Your task to perform on an android device: check data usage Image 0: 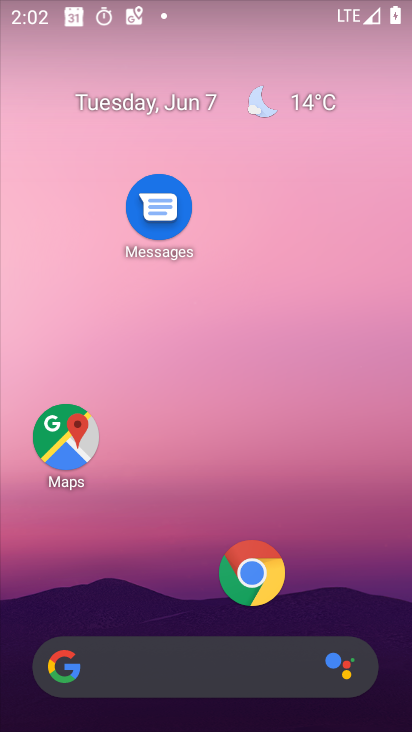
Step 0: drag from (198, 640) to (247, 3)
Your task to perform on an android device: check data usage Image 1: 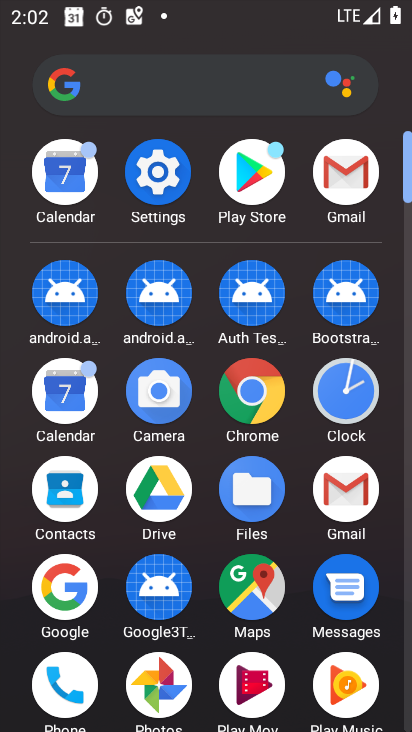
Step 1: click (156, 165)
Your task to perform on an android device: check data usage Image 2: 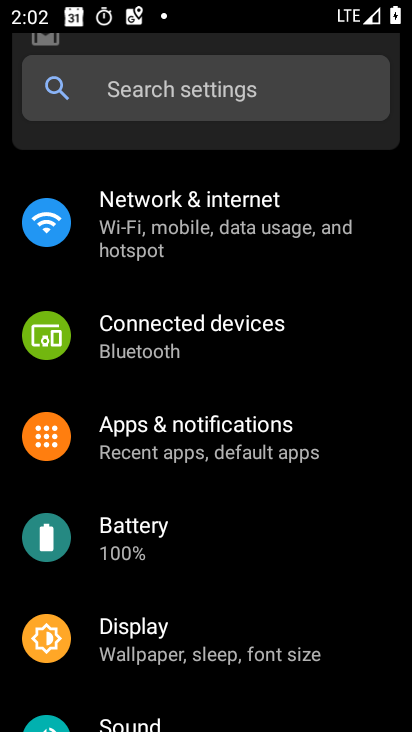
Step 2: click (211, 224)
Your task to perform on an android device: check data usage Image 3: 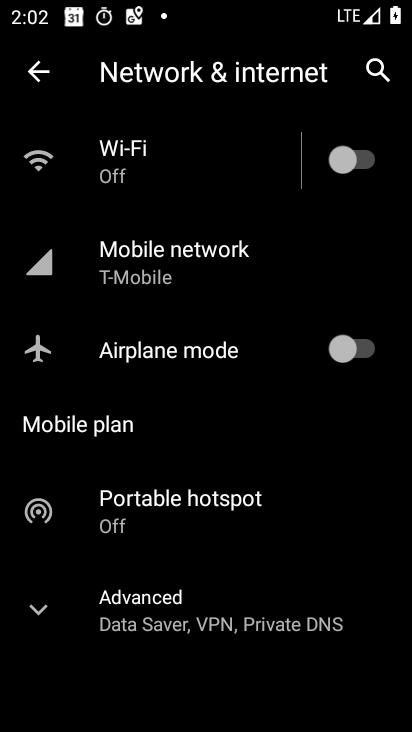
Step 3: click (196, 268)
Your task to perform on an android device: check data usage Image 4: 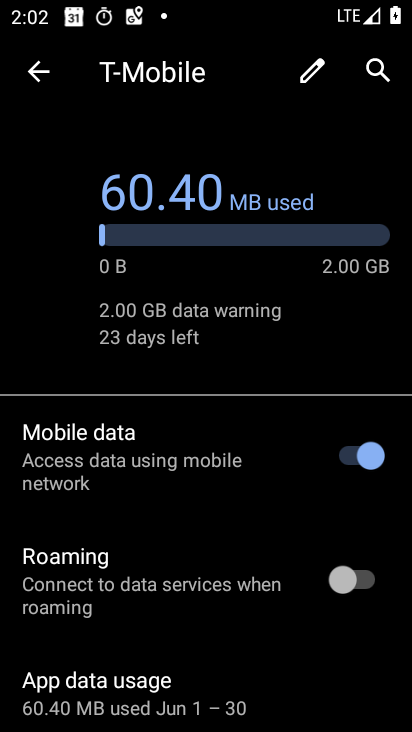
Step 4: click (211, 677)
Your task to perform on an android device: check data usage Image 5: 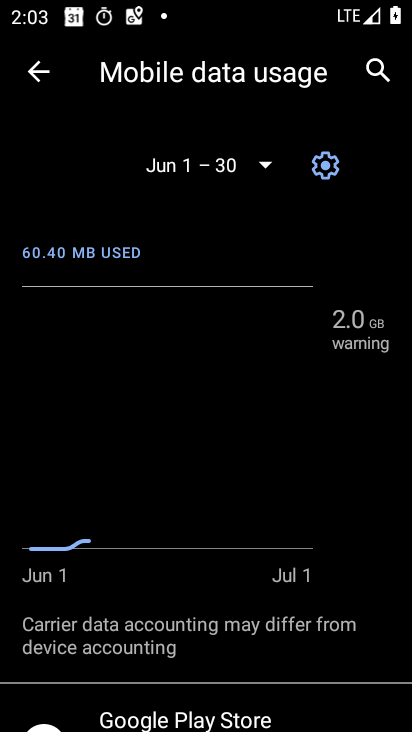
Step 5: task complete